Your task to perform on an android device: allow cookies in the chrome app Image 0: 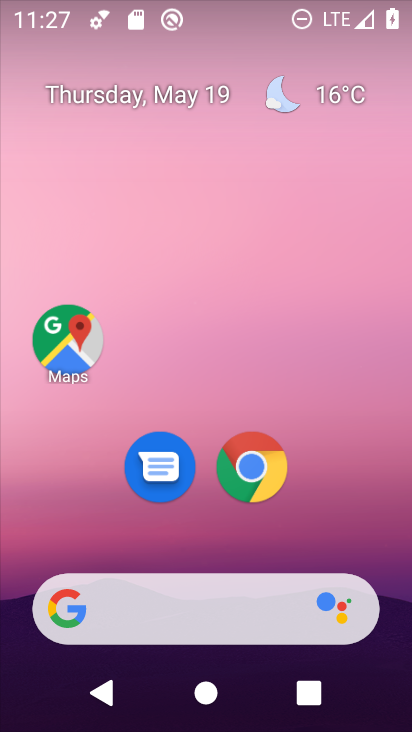
Step 0: click (251, 468)
Your task to perform on an android device: allow cookies in the chrome app Image 1: 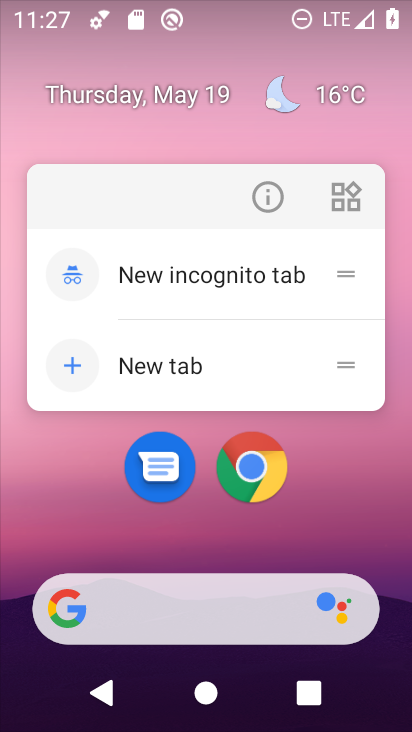
Step 1: click (251, 447)
Your task to perform on an android device: allow cookies in the chrome app Image 2: 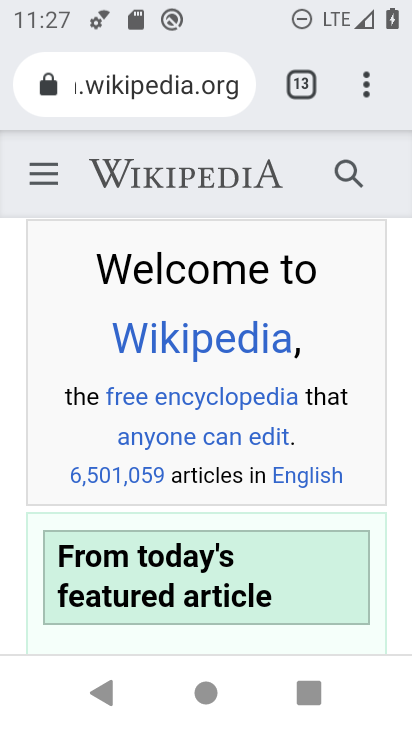
Step 2: click (350, 70)
Your task to perform on an android device: allow cookies in the chrome app Image 3: 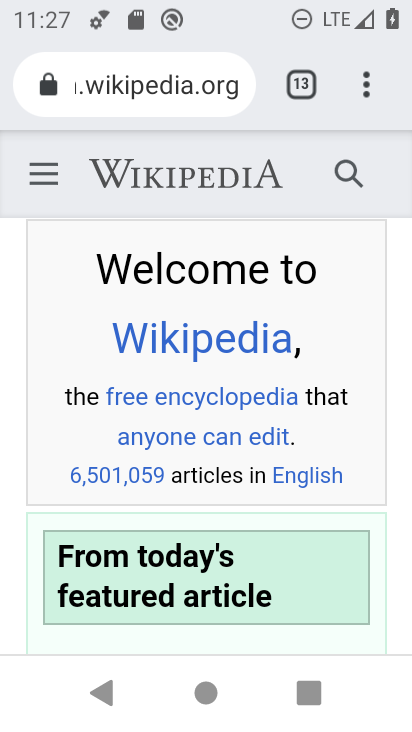
Step 3: click (362, 79)
Your task to perform on an android device: allow cookies in the chrome app Image 4: 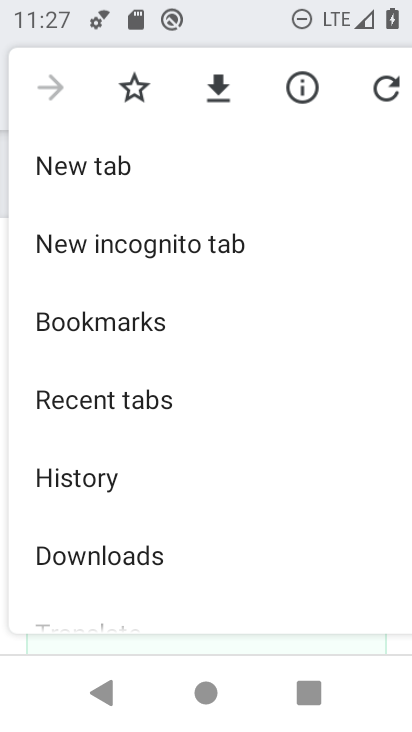
Step 4: drag from (148, 530) to (200, 233)
Your task to perform on an android device: allow cookies in the chrome app Image 5: 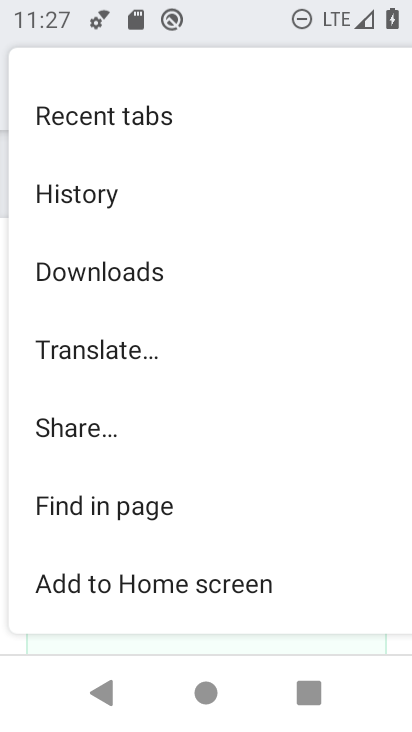
Step 5: drag from (174, 522) to (255, 178)
Your task to perform on an android device: allow cookies in the chrome app Image 6: 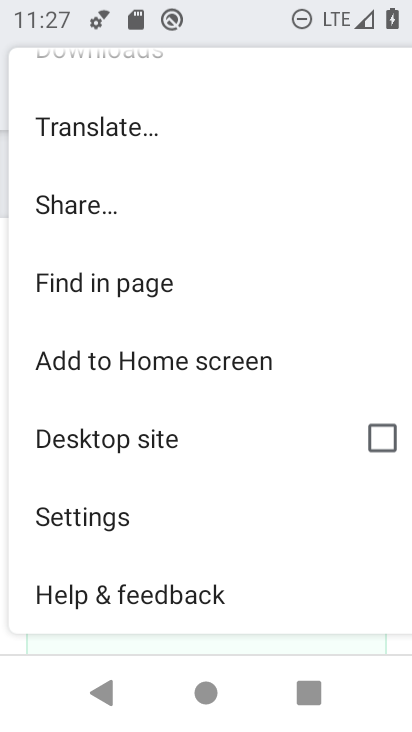
Step 6: click (128, 512)
Your task to perform on an android device: allow cookies in the chrome app Image 7: 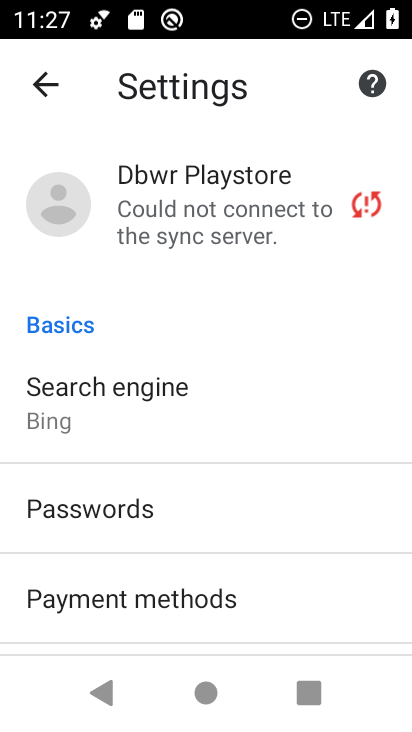
Step 7: drag from (183, 528) to (244, 179)
Your task to perform on an android device: allow cookies in the chrome app Image 8: 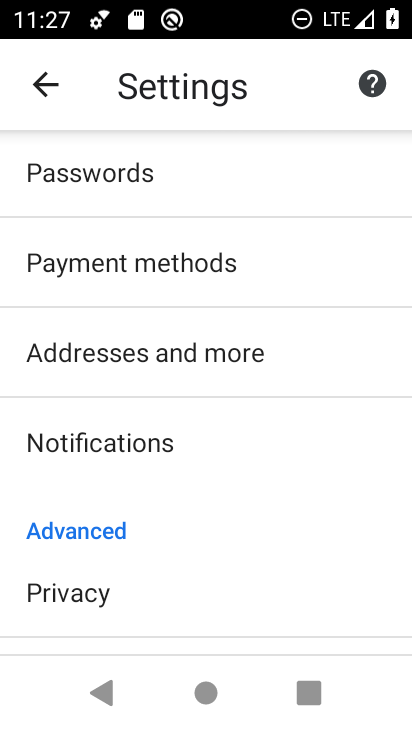
Step 8: drag from (174, 568) to (253, 311)
Your task to perform on an android device: allow cookies in the chrome app Image 9: 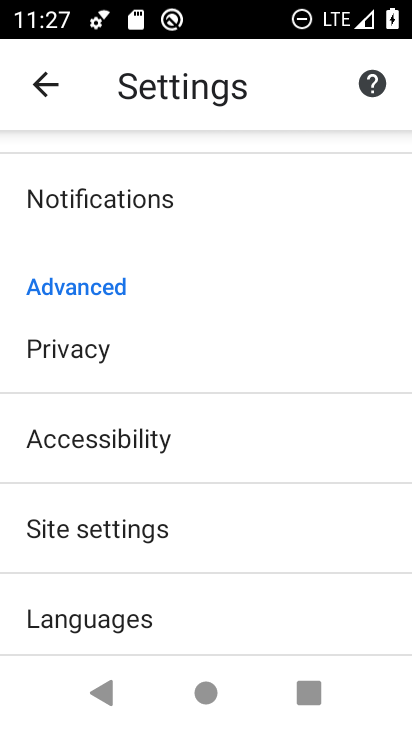
Step 9: click (124, 537)
Your task to perform on an android device: allow cookies in the chrome app Image 10: 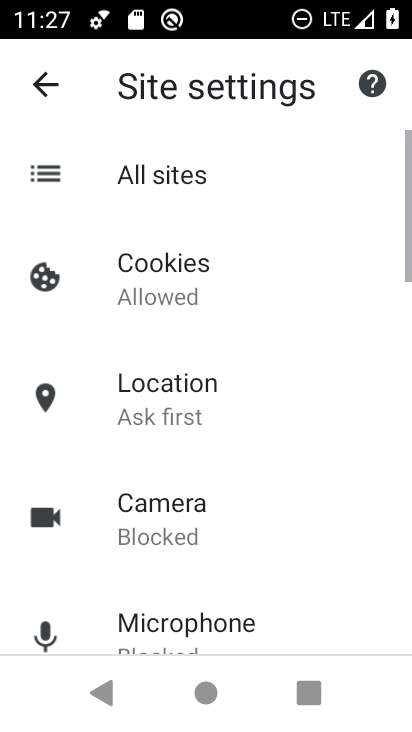
Step 10: click (216, 260)
Your task to perform on an android device: allow cookies in the chrome app Image 11: 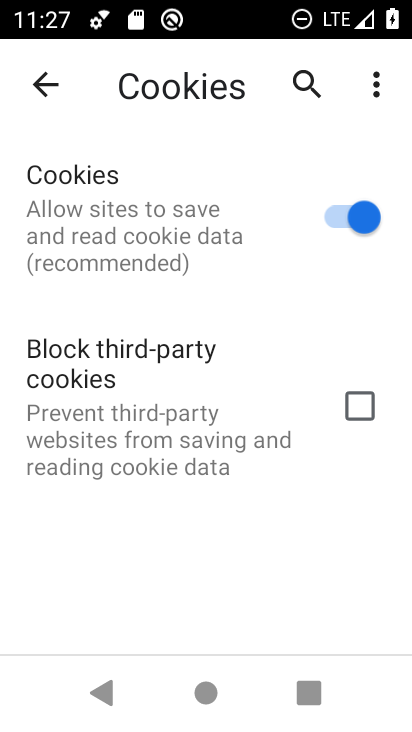
Step 11: task complete